Your task to perform on an android device: Is it going to rain tomorrow? Image 0: 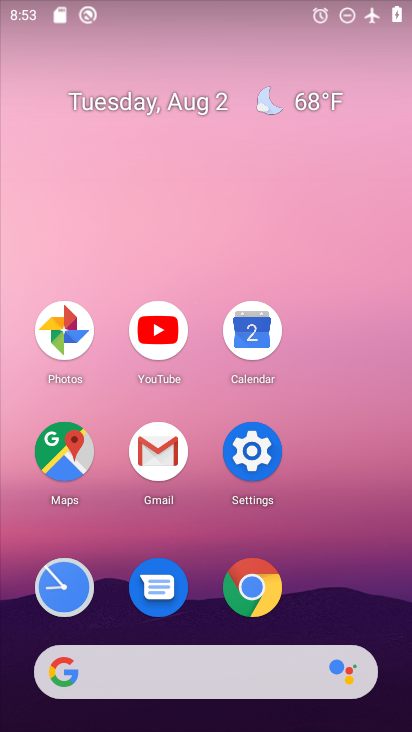
Step 0: click (145, 669)
Your task to perform on an android device: Is it going to rain tomorrow? Image 1: 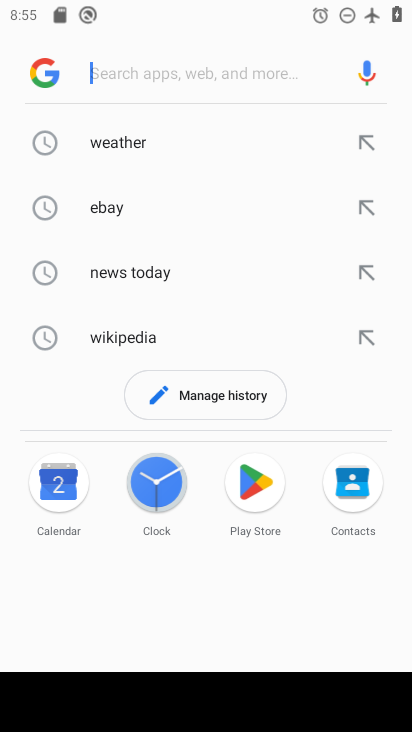
Step 1: click (125, 139)
Your task to perform on an android device: Is it going to rain tomorrow? Image 2: 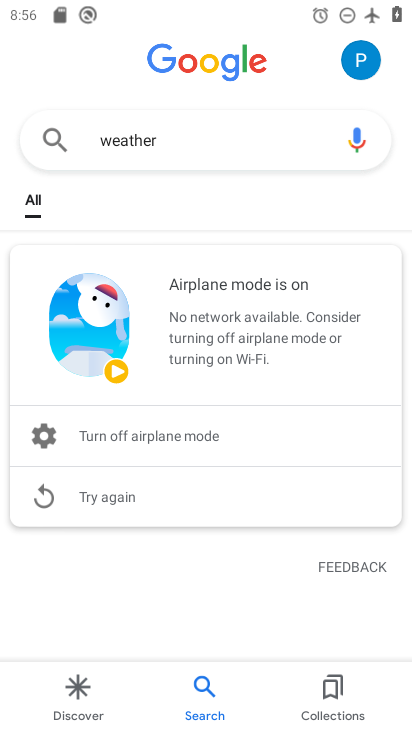
Step 2: task complete